Your task to perform on an android device: change the clock style Image 0: 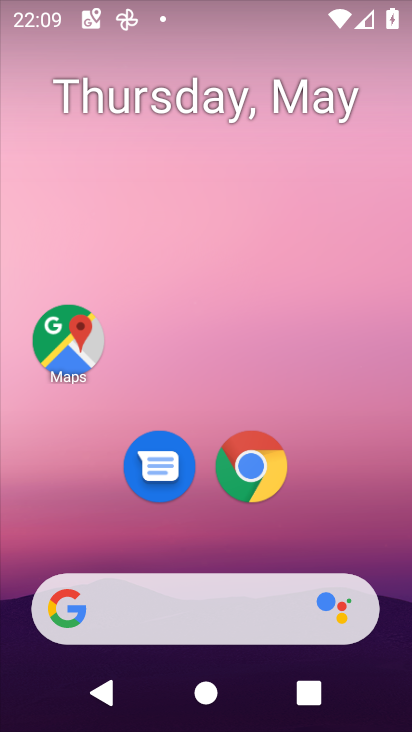
Step 0: drag from (368, 537) to (329, 39)
Your task to perform on an android device: change the clock style Image 1: 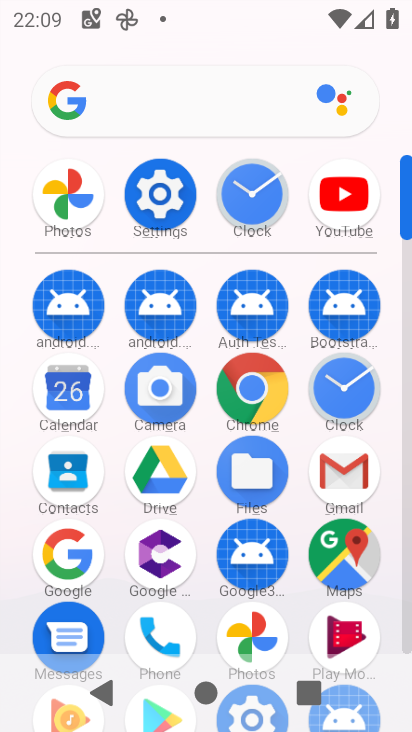
Step 1: click (250, 199)
Your task to perform on an android device: change the clock style Image 2: 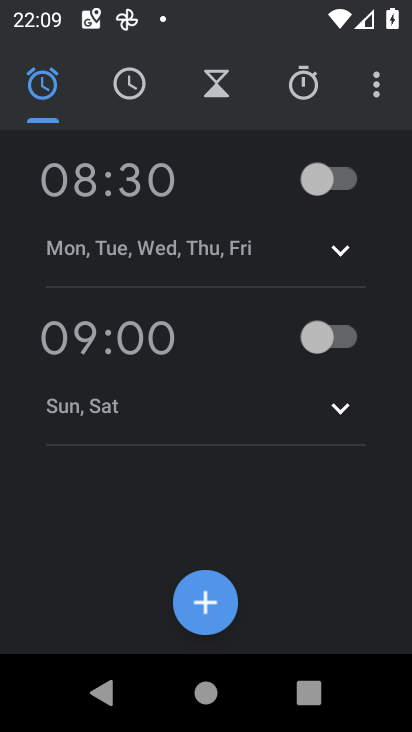
Step 2: click (384, 91)
Your task to perform on an android device: change the clock style Image 3: 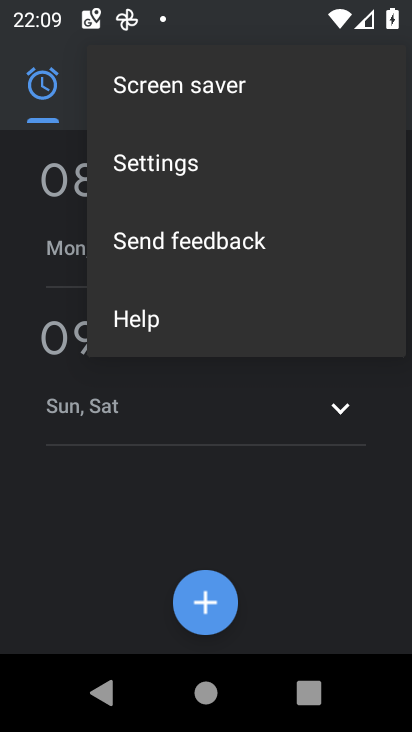
Step 3: click (267, 150)
Your task to perform on an android device: change the clock style Image 4: 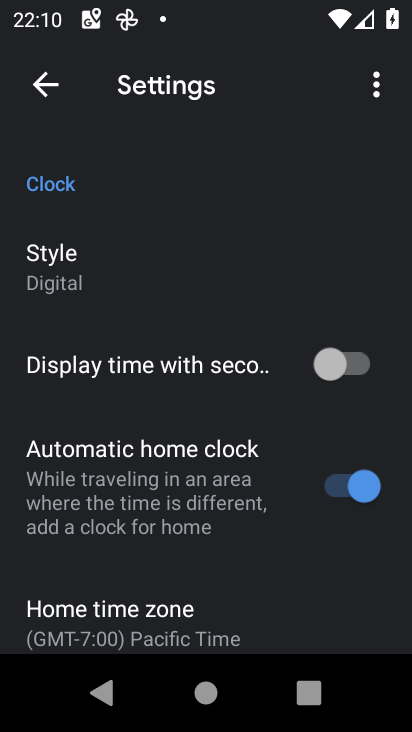
Step 4: drag from (164, 426) to (180, 276)
Your task to perform on an android device: change the clock style Image 5: 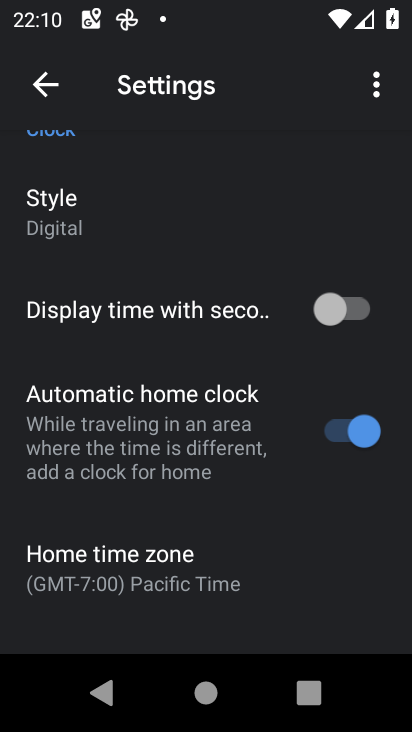
Step 5: click (128, 232)
Your task to perform on an android device: change the clock style Image 6: 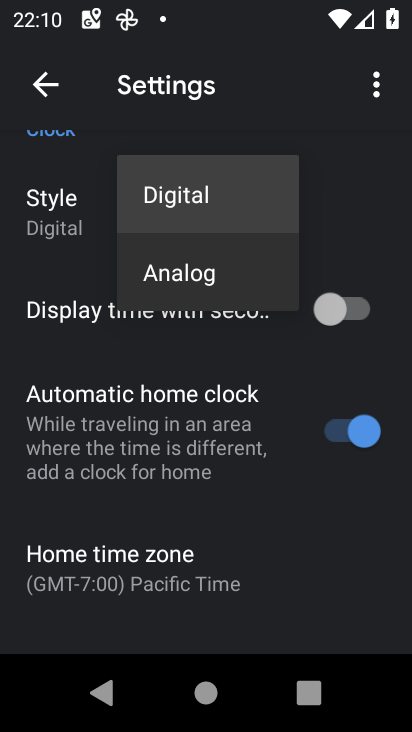
Step 6: click (206, 283)
Your task to perform on an android device: change the clock style Image 7: 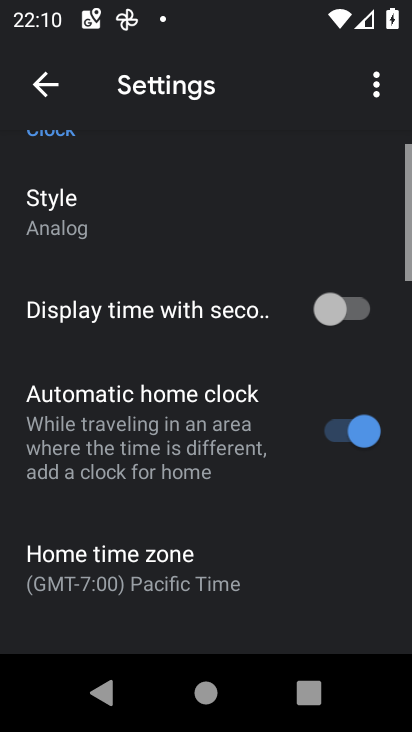
Step 7: task complete